Your task to perform on an android device: Open sound settings Image 0: 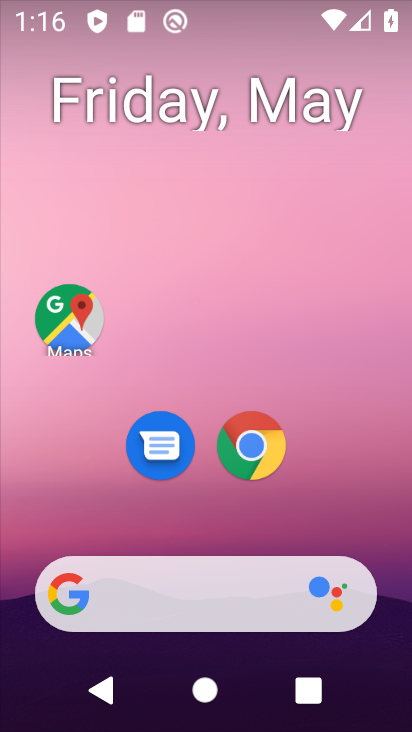
Step 0: drag from (394, 600) to (378, 107)
Your task to perform on an android device: Open sound settings Image 1: 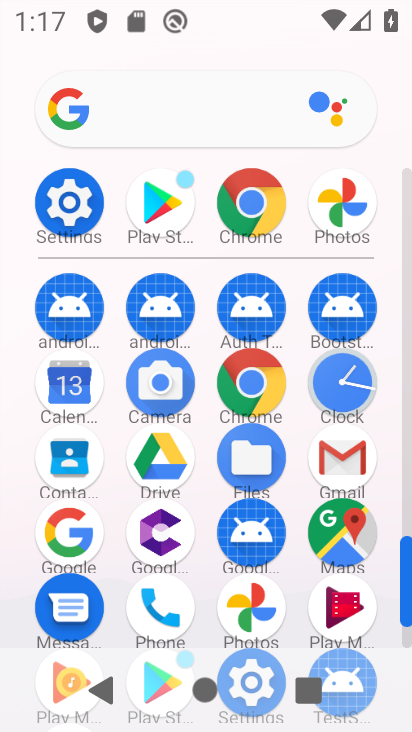
Step 1: click (406, 643)
Your task to perform on an android device: Open sound settings Image 2: 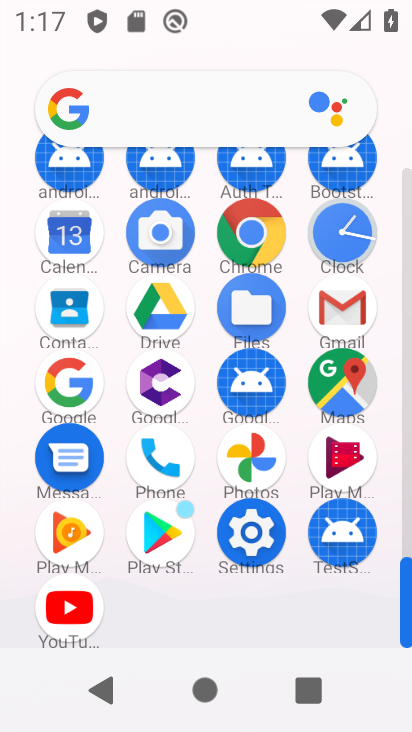
Step 2: click (248, 534)
Your task to perform on an android device: Open sound settings Image 3: 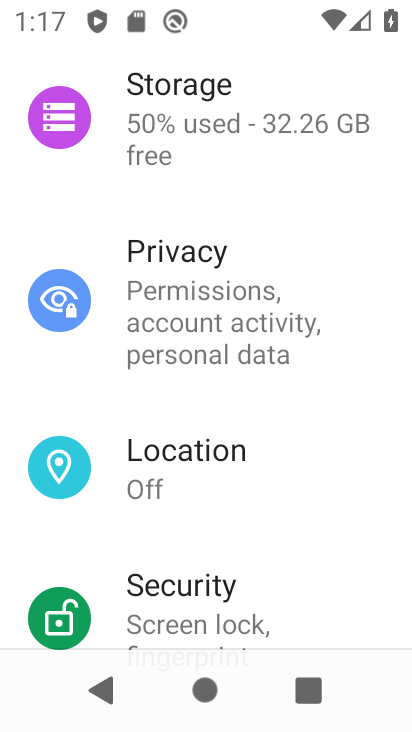
Step 3: drag from (290, 259) to (310, 560)
Your task to perform on an android device: Open sound settings Image 4: 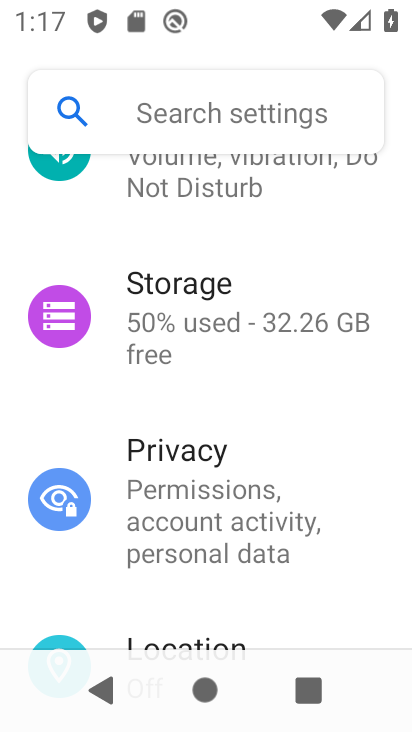
Step 4: drag from (321, 211) to (290, 484)
Your task to perform on an android device: Open sound settings Image 5: 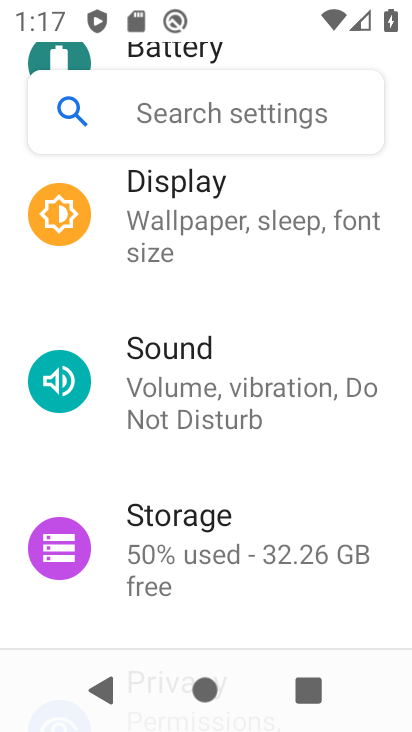
Step 5: click (178, 357)
Your task to perform on an android device: Open sound settings Image 6: 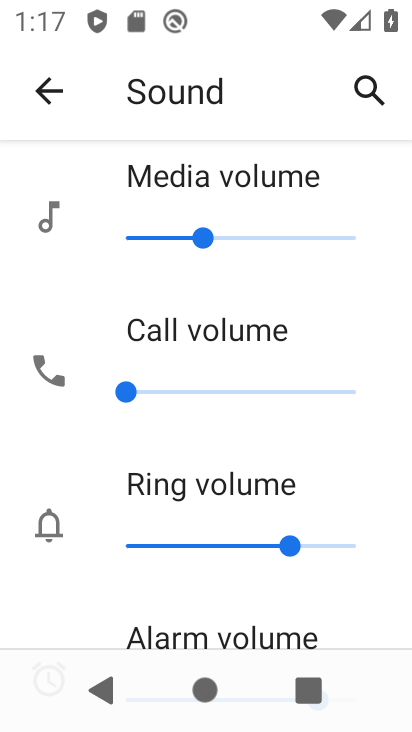
Step 6: task complete